Your task to perform on an android device: change timer sound Image 0: 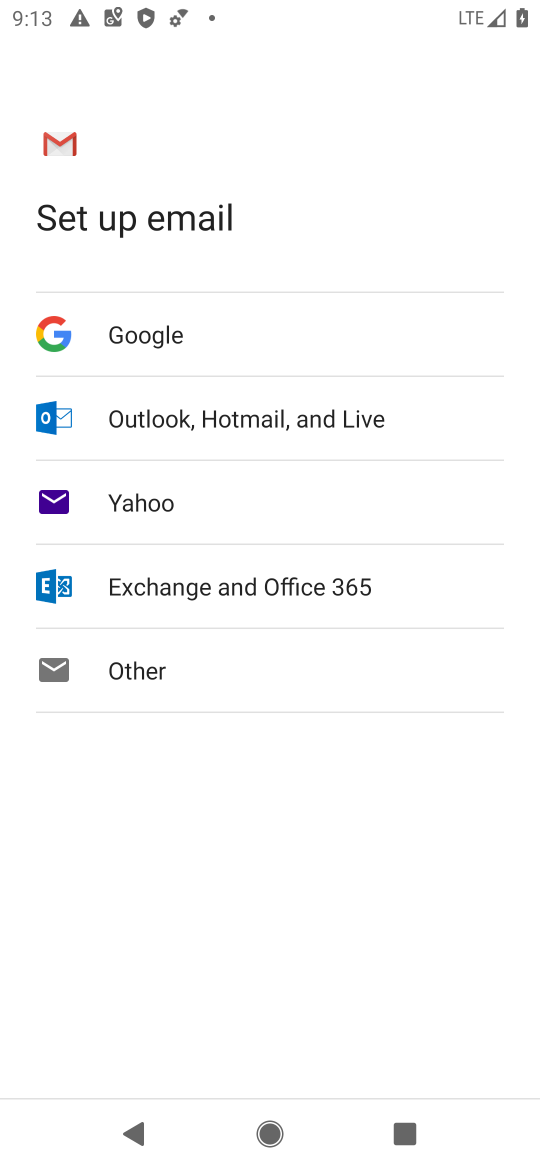
Step 0: press home button
Your task to perform on an android device: change timer sound Image 1: 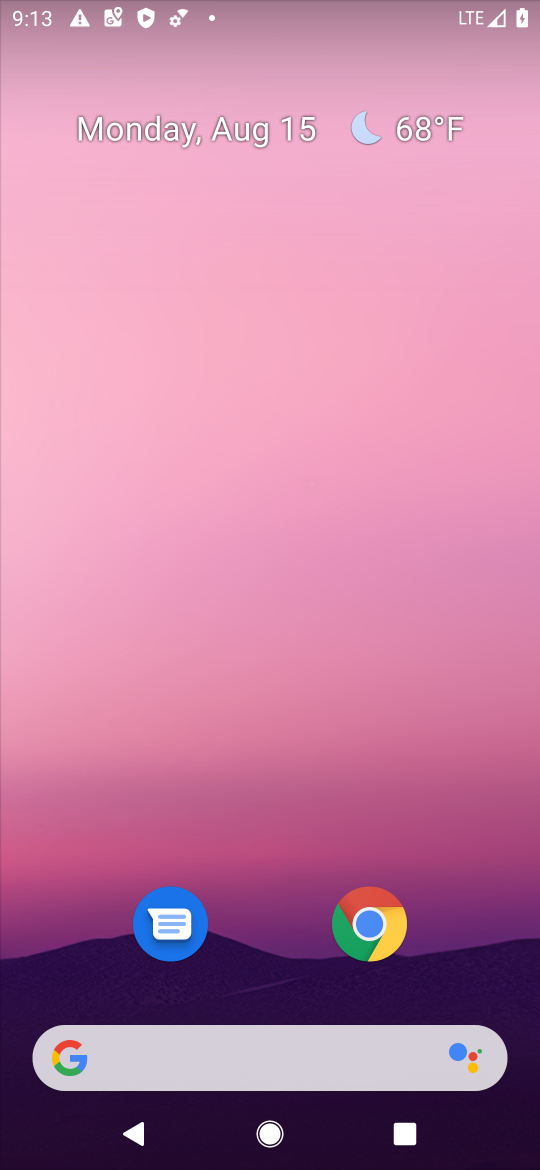
Step 1: drag from (513, 983) to (449, 210)
Your task to perform on an android device: change timer sound Image 2: 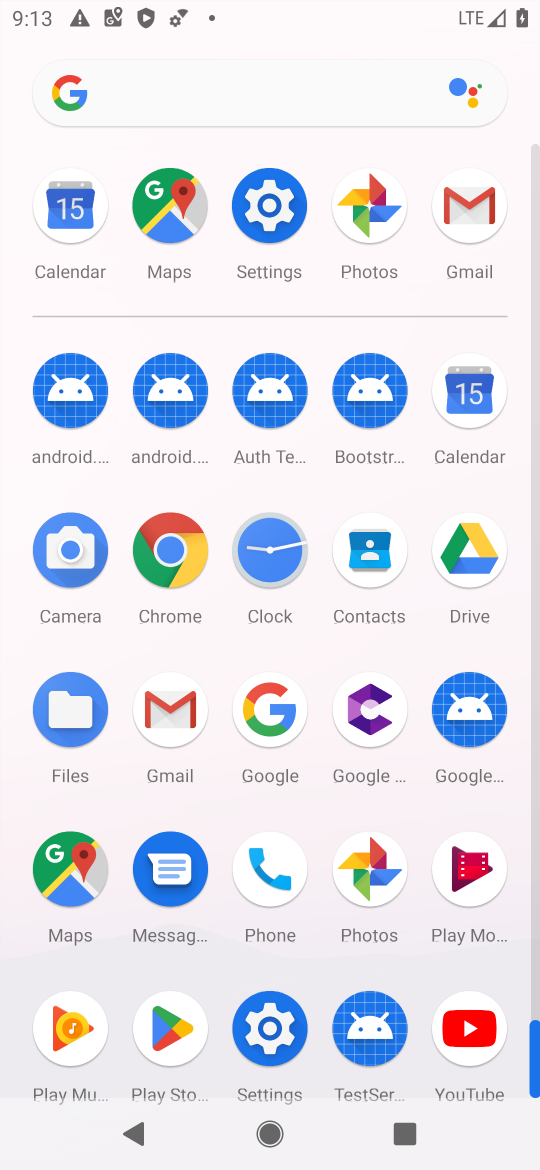
Step 2: click (268, 554)
Your task to perform on an android device: change timer sound Image 3: 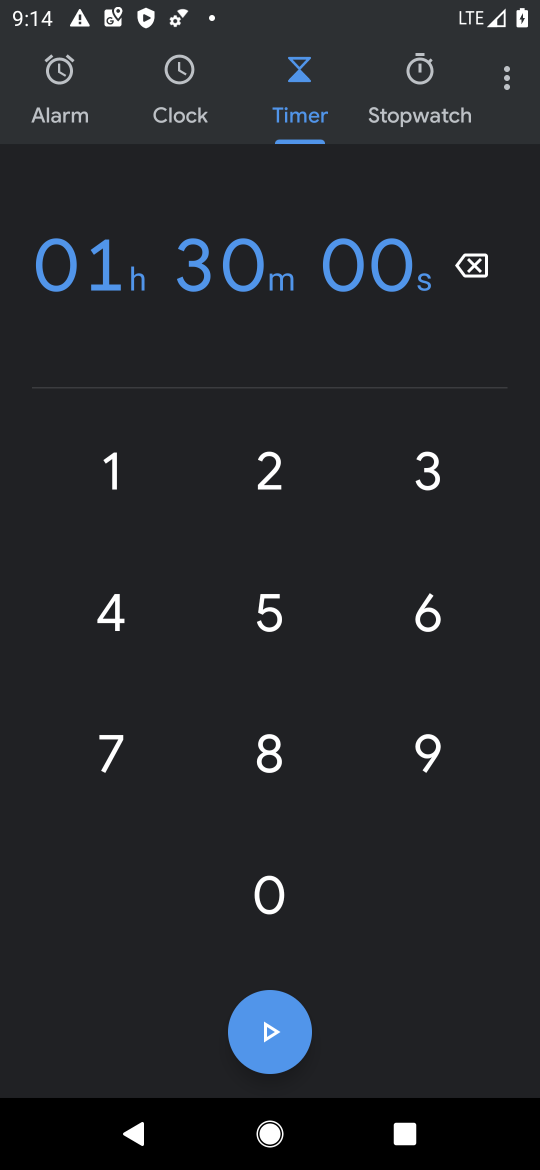
Step 3: click (497, 86)
Your task to perform on an android device: change timer sound Image 4: 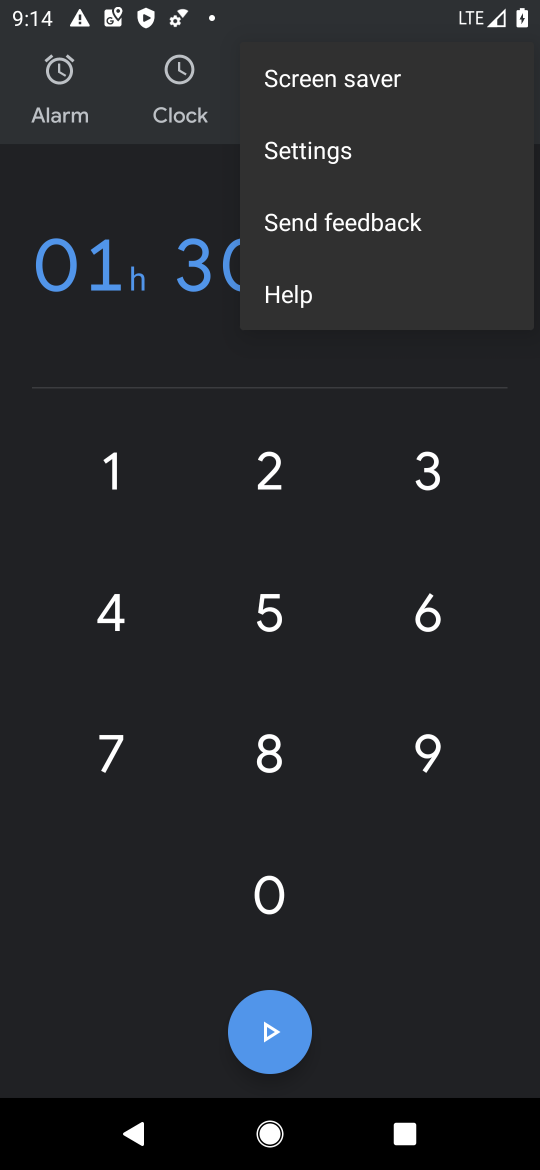
Step 4: click (294, 156)
Your task to perform on an android device: change timer sound Image 5: 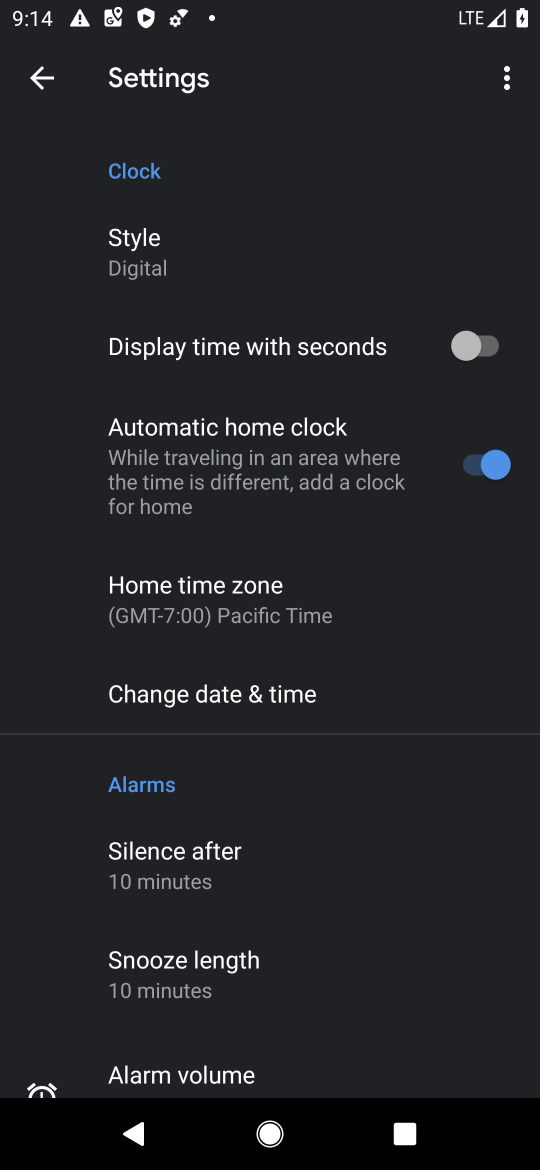
Step 5: drag from (321, 972) to (242, 489)
Your task to perform on an android device: change timer sound Image 6: 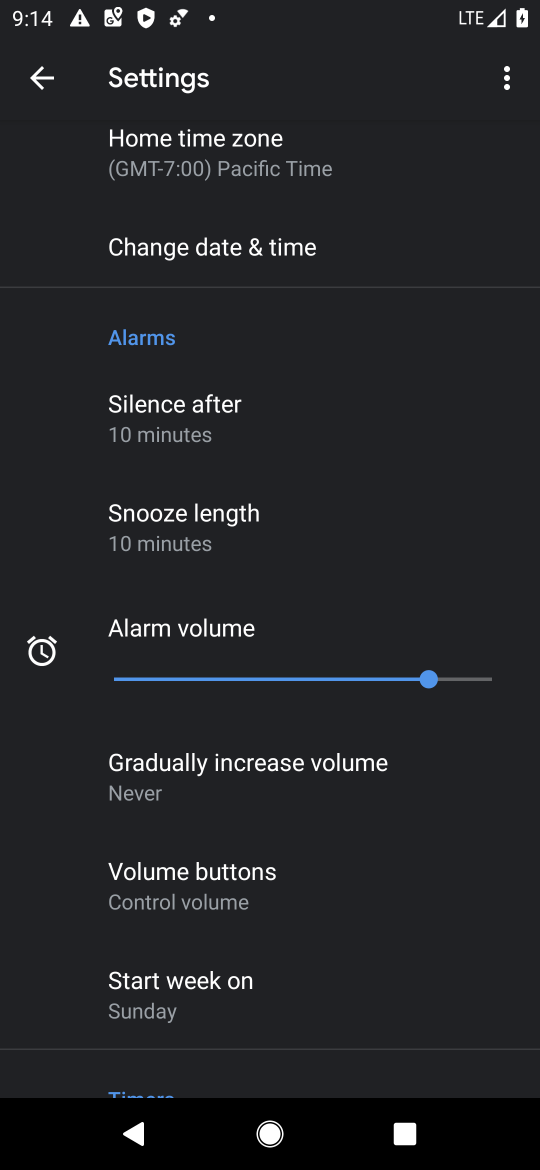
Step 6: drag from (272, 1056) to (295, 461)
Your task to perform on an android device: change timer sound Image 7: 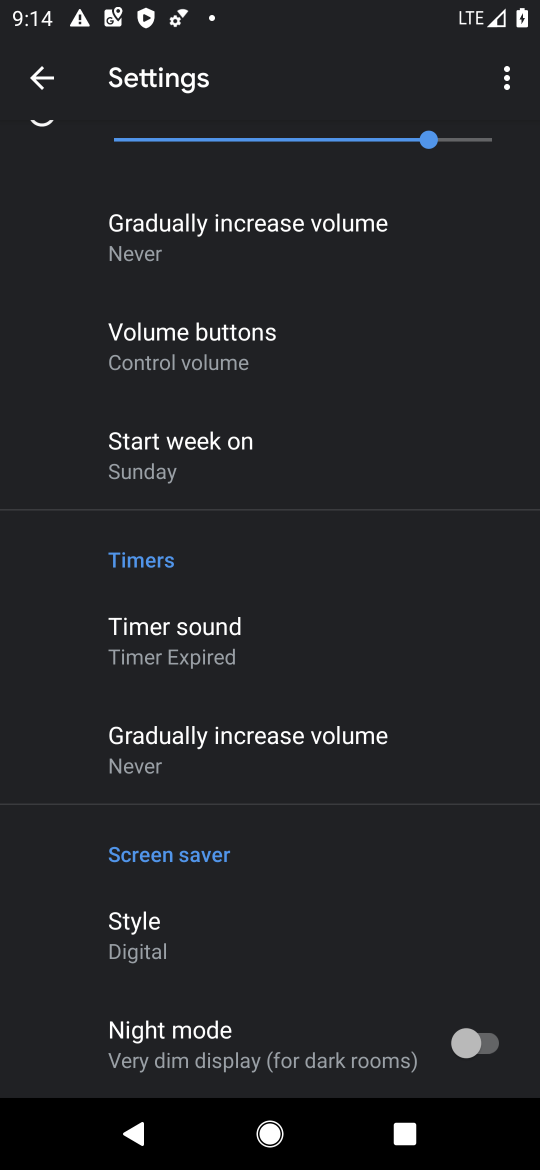
Step 7: click (157, 659)
Your task to perform on an android device: change timer sound Image 8: 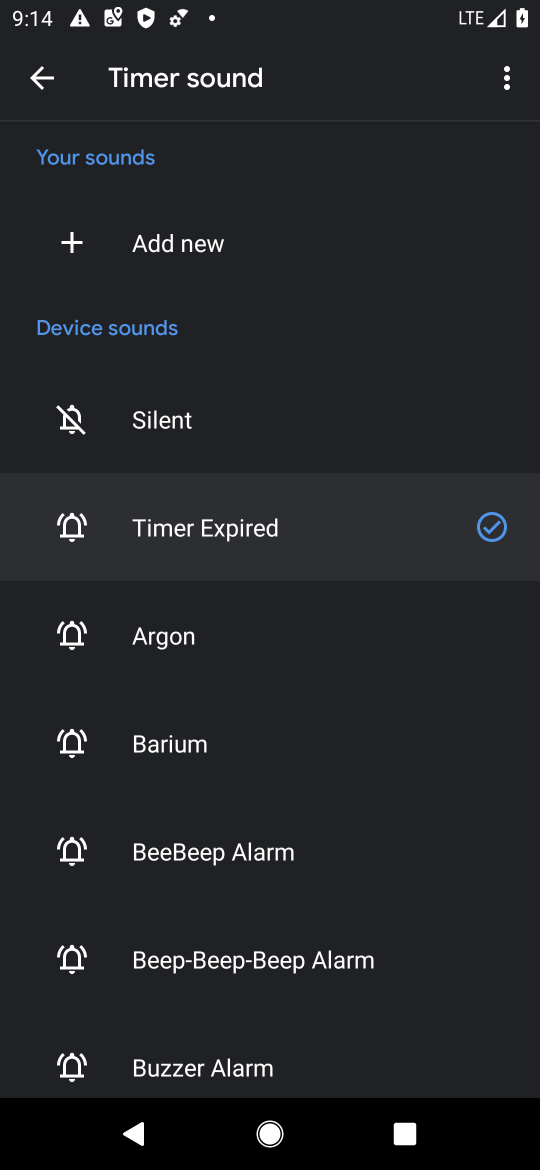
Step 8: click (177, 852)
Your task to perform on an android device: change timer sound Image 9: 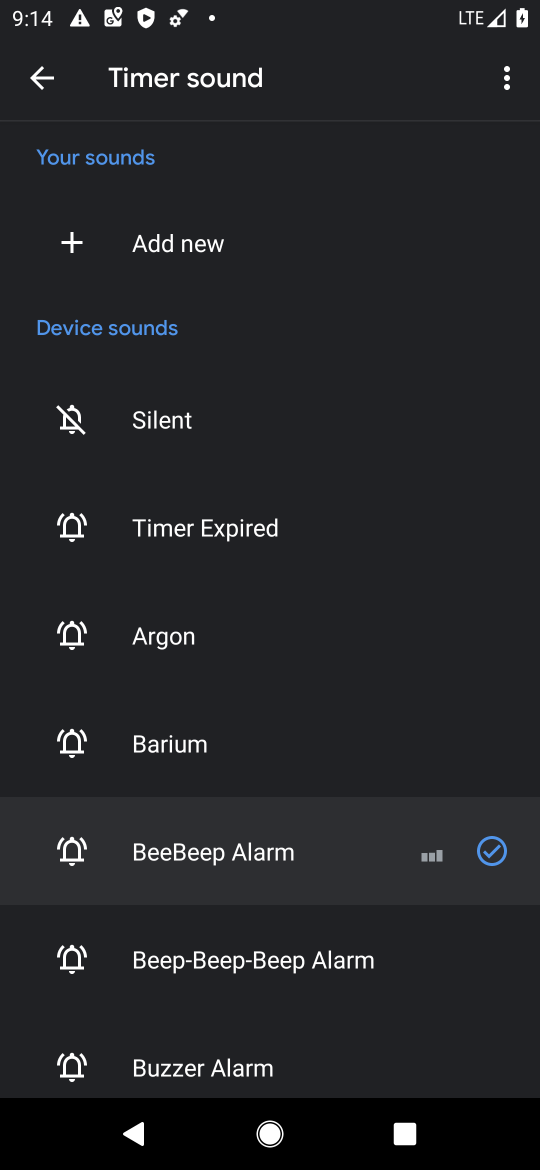
Step 9: task complete